Your task to perform on an android device: star an email in the gmail app Image 0: 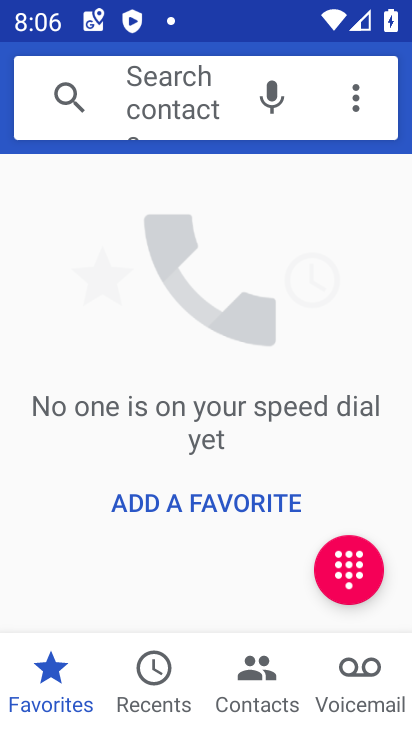
Step 0: press home button
Your task to perform on an android device: star an email in the gmail app Image 1: 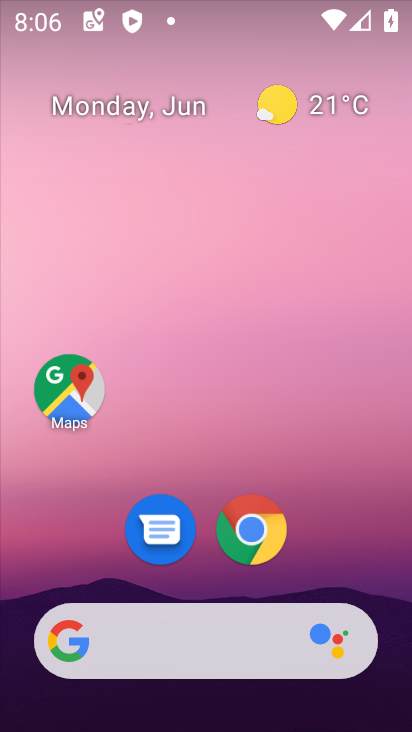
Step 1: drag from (51, 514) to (252, 163)
Your task to perform on an android device: star an email in the gmail app Image 2: 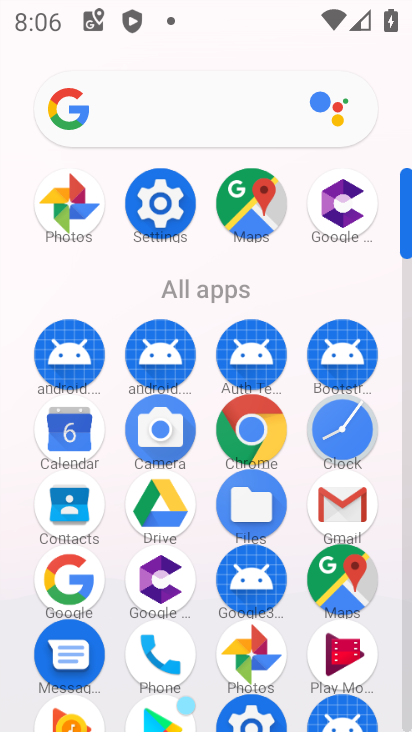
Step 2: click (317, 505)
Your task to perform on an android device: star an email in the gmail app Image 3: 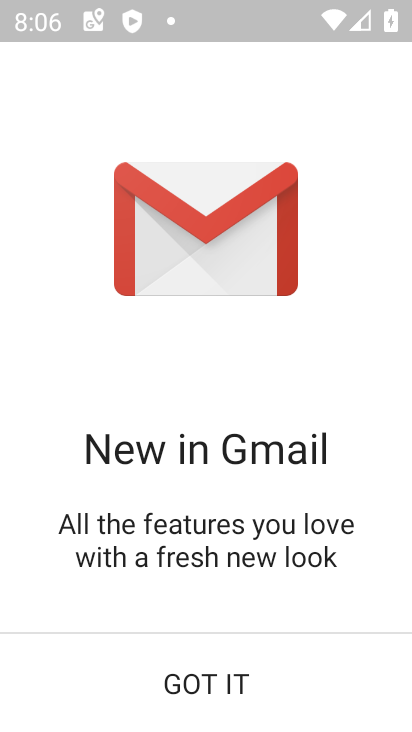
Step 3: click (167, 675)
Your task to perform on an android device: star an email in the gmail app Image 4: 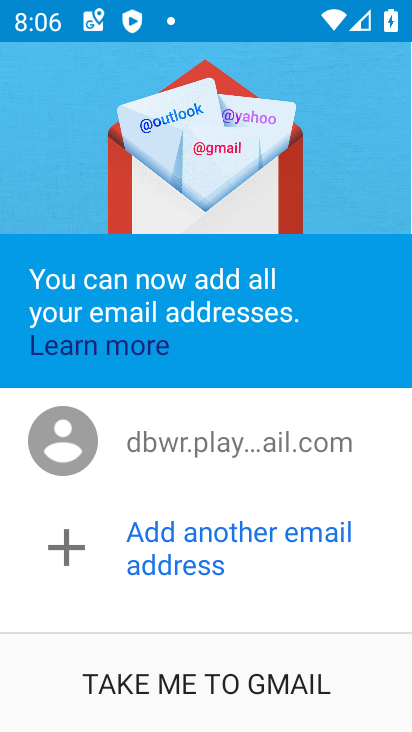
Step 4: click (145, 677)
Your task to perform on an android device: star an email in the gmail app Image 5: 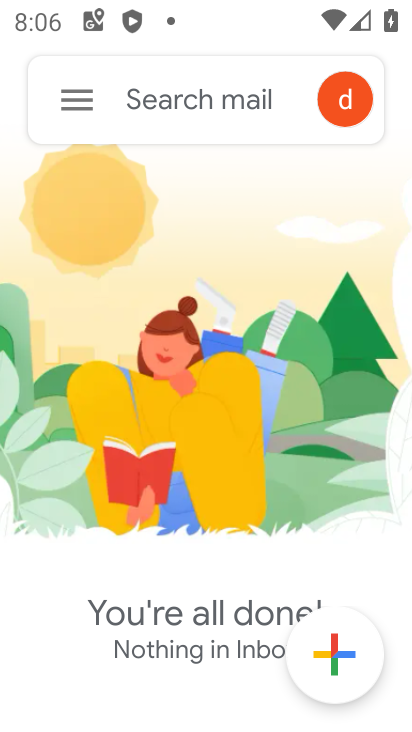
Step 5: click (148, 666)
Your task to perform on an android device: star an email in the gmail app Image 6: 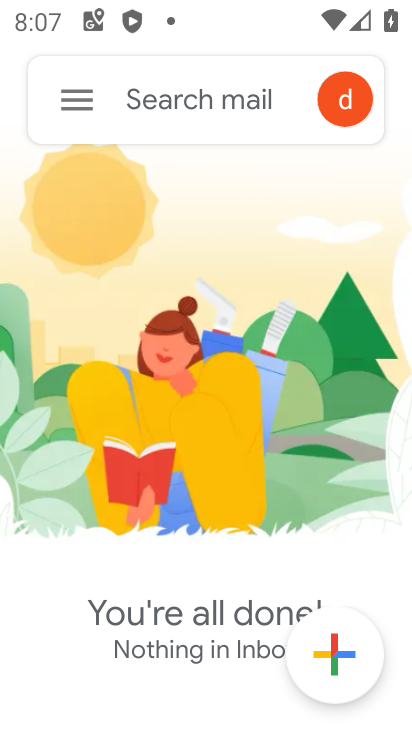
Step 6: click (148, 666)
Your task to perform on an android device: star an email in the gmail app Image 7: 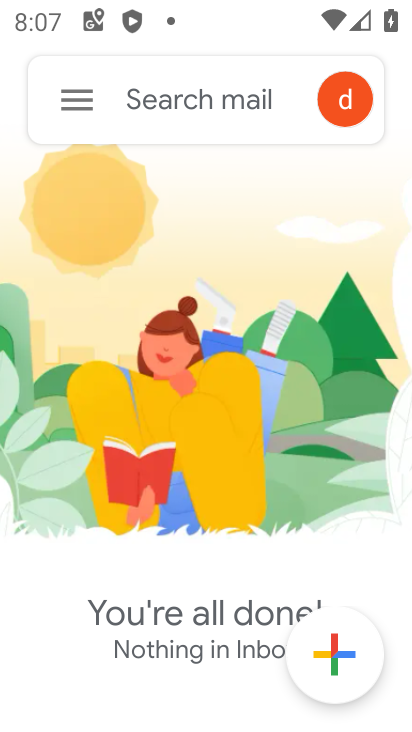
Step 7: click (86, 116)
Your task to perform on an android device: star an email in the gmail app Image 8: 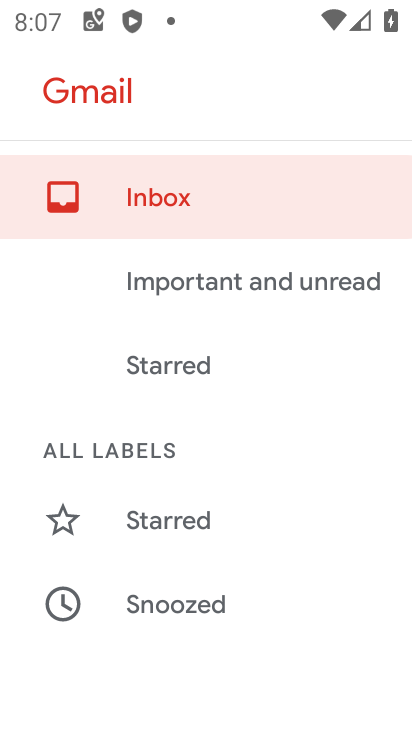
Step 8: drag from (8, 581) to (204, 262)
Your task to perform on an android device: star an email in the gmail app Image 9: 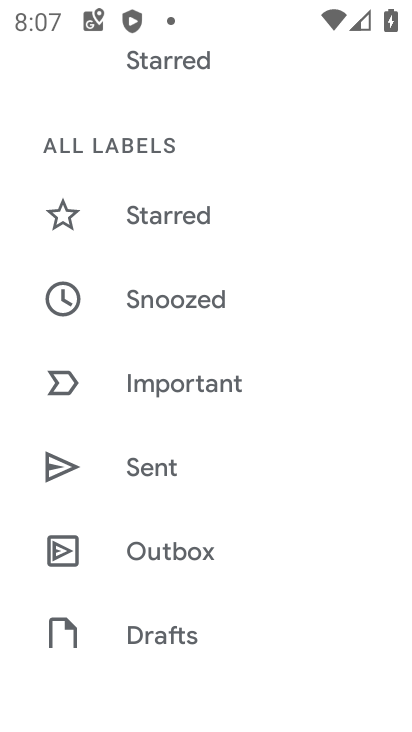
Step 9: drag from (217, 153) to (176, 634)
Your task to perform on an android device: star an email in the gmail app Image 10: 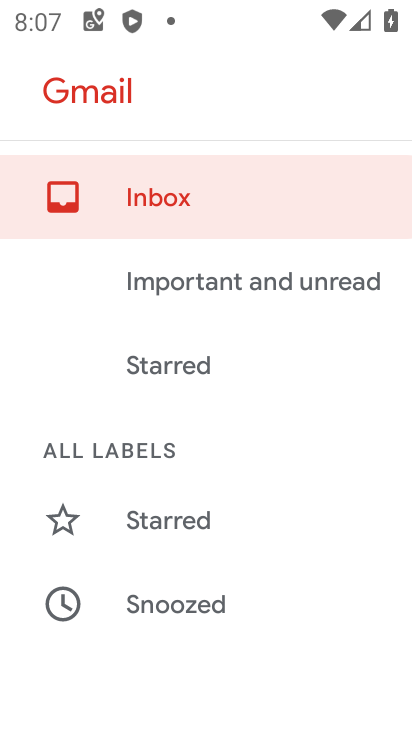
Step 10: click (159, 200)
Your task to perform on an android device: star an email in the gmail app Image 11: 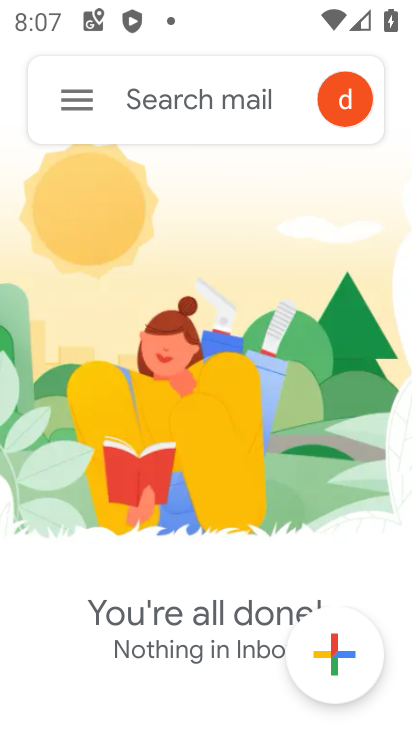
Step 11: task complete